Your task to perform on an android device: Open the calendar app, open the side menu, and click the "Day" option Image 0: 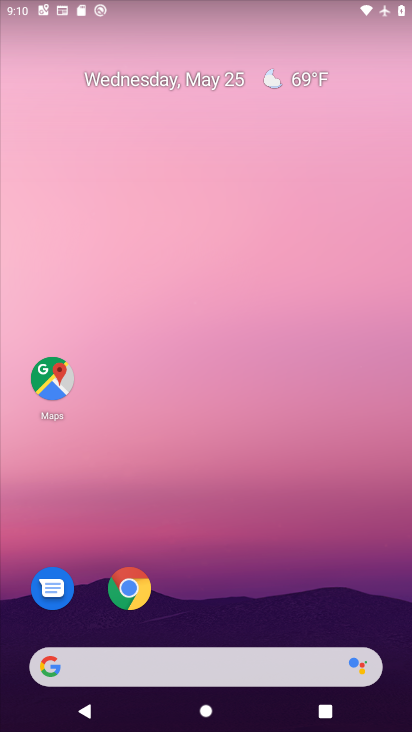
Step 0: drag from (383, 622) to (369, 140)
Your task to perform on an android device: Open the calendar app, open the side menu, and click the "Day" option Image 1: 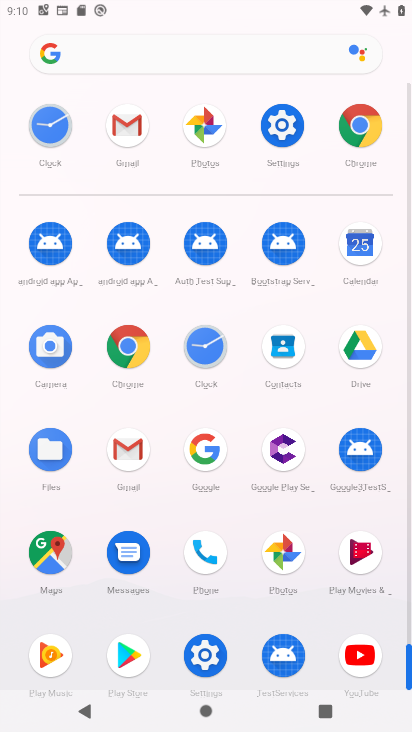
Step 1: click (371, 255)
Your task to perform on an android device: Open the calendar app, open the side menu, and click the "Day" option Image 2: 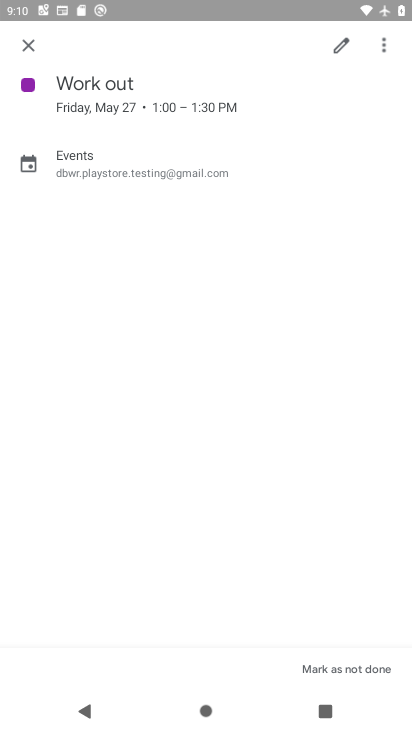
Step 2: click (35, 49)
Your task to perform on an android device: Open the calendar app, open the side menu, and click the "Day" option Image 3: 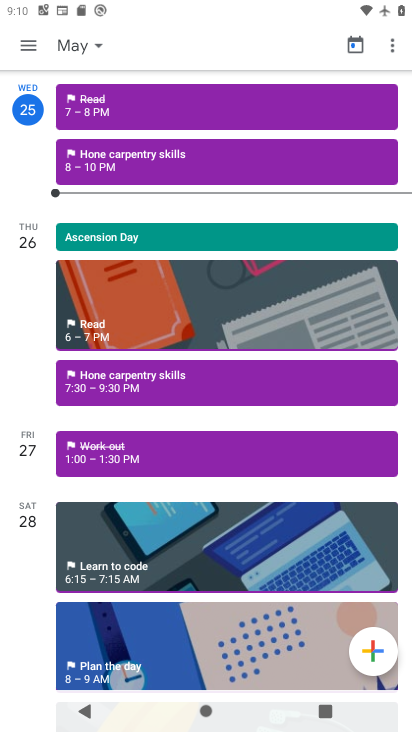
Step 3: click (35, 49)
Your task to perform on an android device: Open the calendar app, open the side menu, and click the "Day" option Image 4: 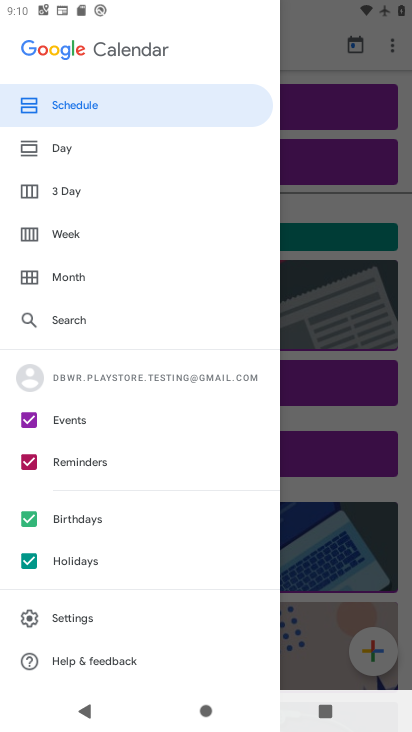
Step 4: click (66, 153)
Your task to perform on an android device: Open the calendar app, open the side menu, and click the "Day" option Image 5: 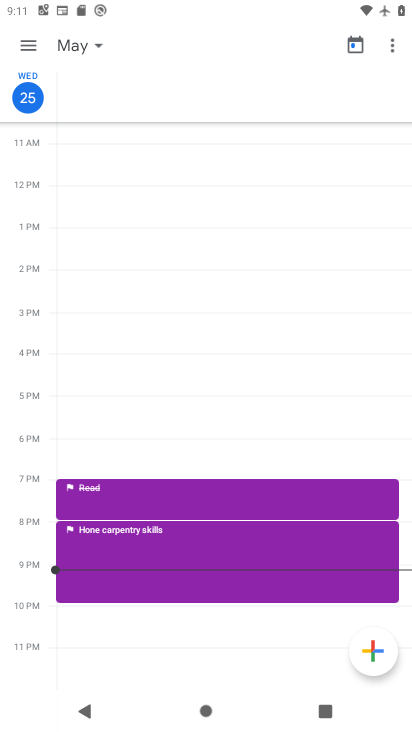
Step 5: task complete